Your task to perform on an android device: Go to sound settings Image 0: 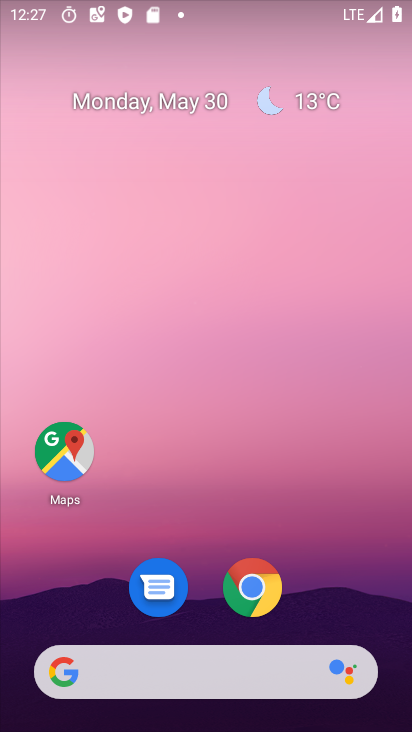
Step 0: drag from (345, 559) to (281, 52)
Your task to perform on an android device: Go to sound settings Image 1: 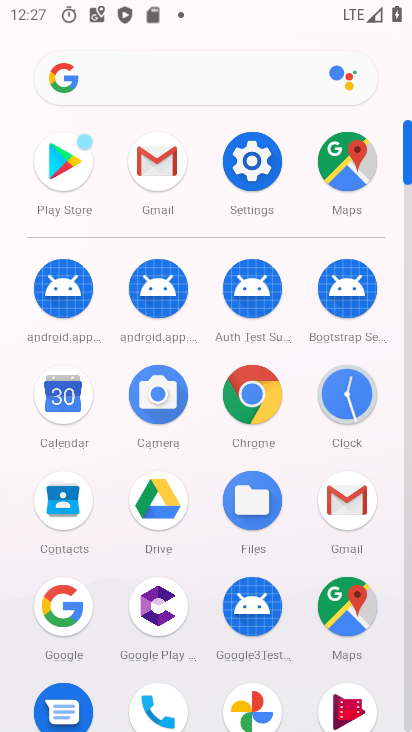
Step 1: click (242, 163)
Your task to perform on an android device: Go to sound settings Image 2: 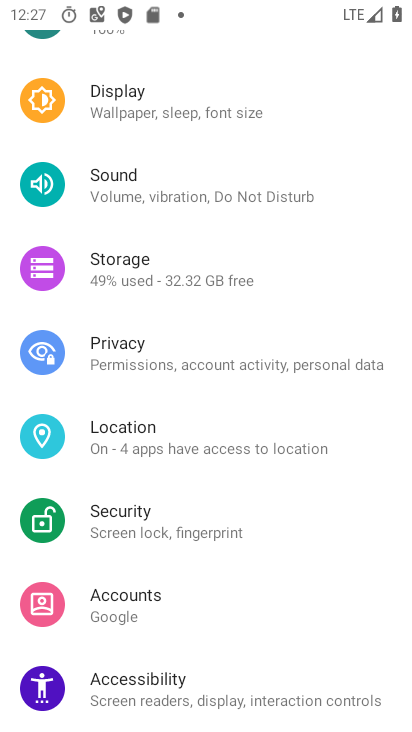
Step 2: click (115, 188)
Your task to perform on an android device: Go to sound settings Image 3: 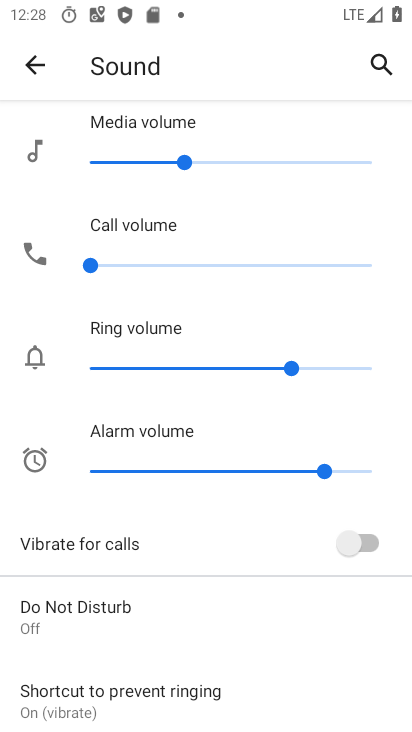
Step 3: task complete